Your task to perform on an android device: stop showing notifications on the lock screen Image 0: 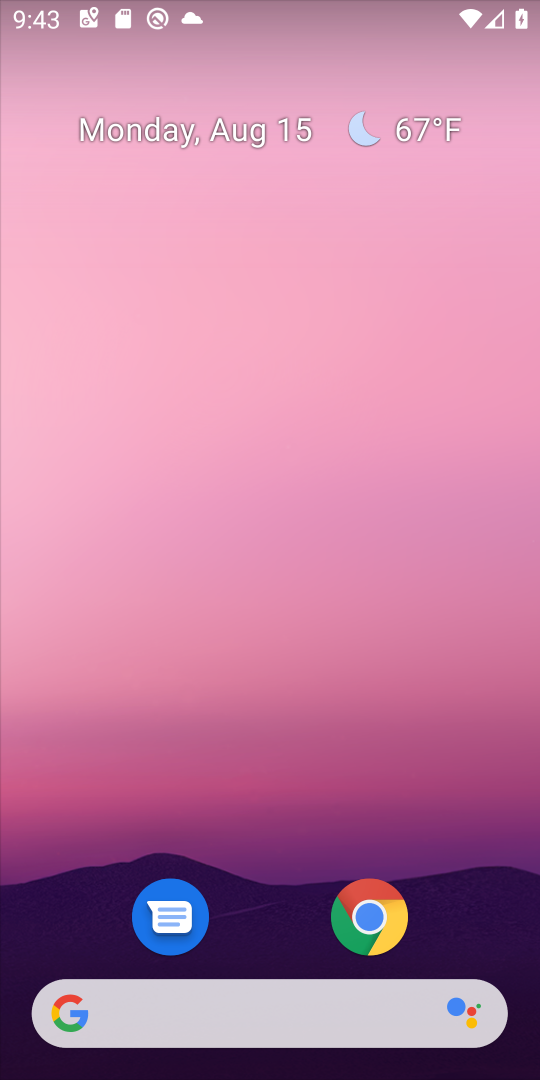
Step 0: drag from (286, 904) to (282, 8)
Your task to perform on an android device: stop showing notifications on the lock screen Image 1: 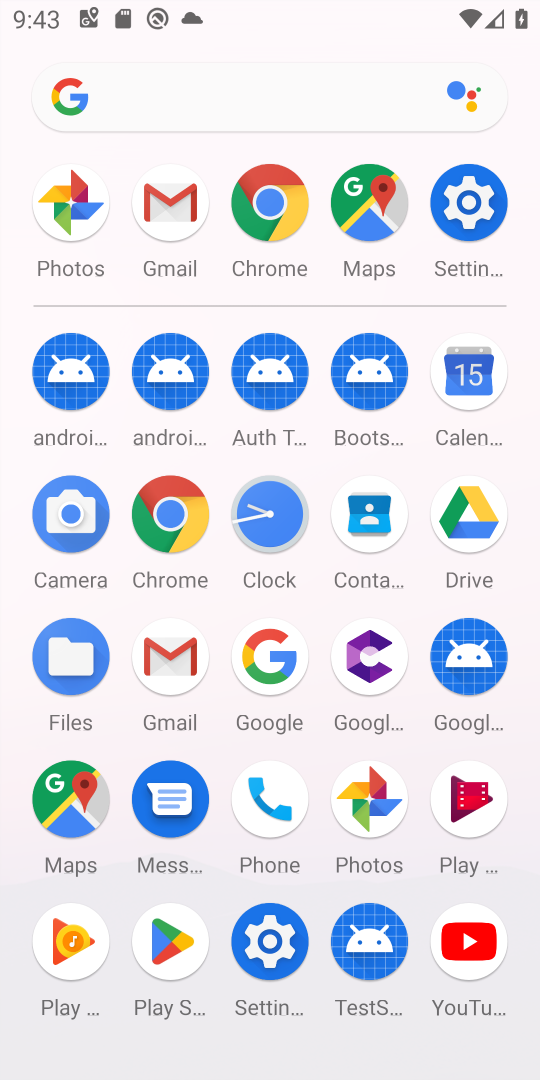
Step 1: click (472, 197)
Your task to perform on an android device: stop showing notifications on the lock screen Image 2: 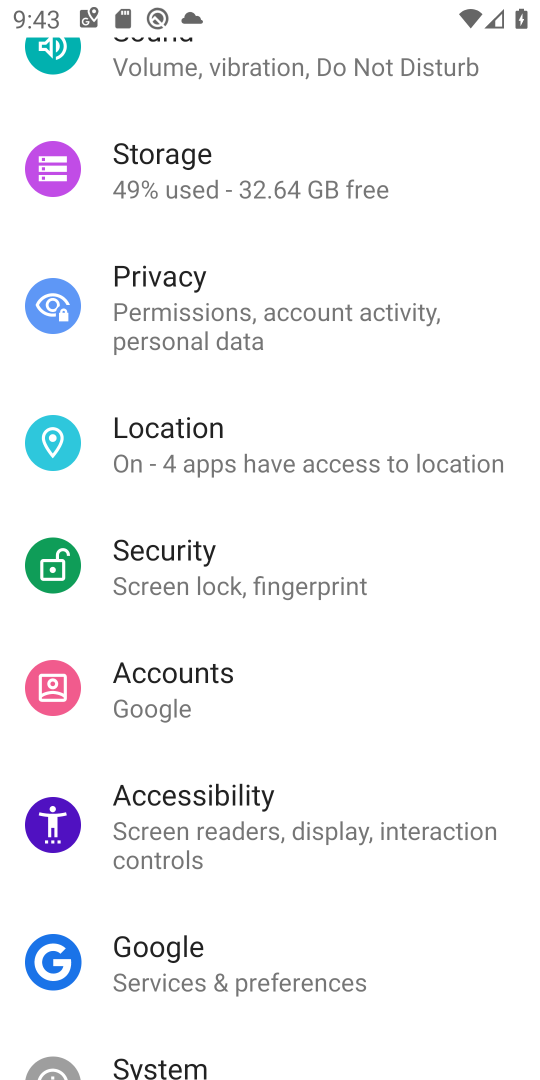
Step 2: drag from (332, 429) to (339, 1030)
Your task to perform on an android device: stop showing notifications on the lock screen Image 3: 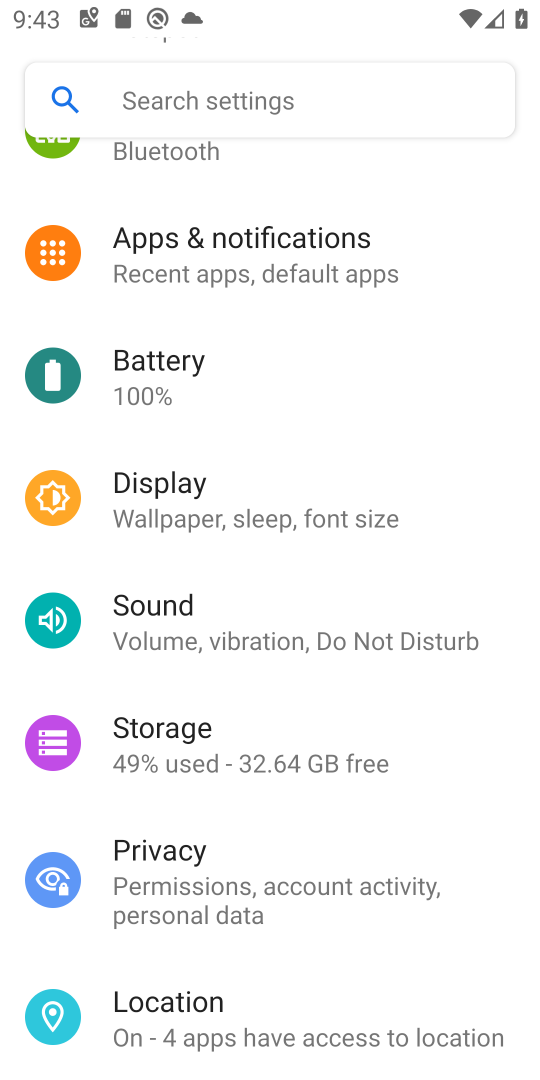
Step 3: click (321, 229)
Your task to perform on an android device: stop showing notifications on the lock screen Image 4: 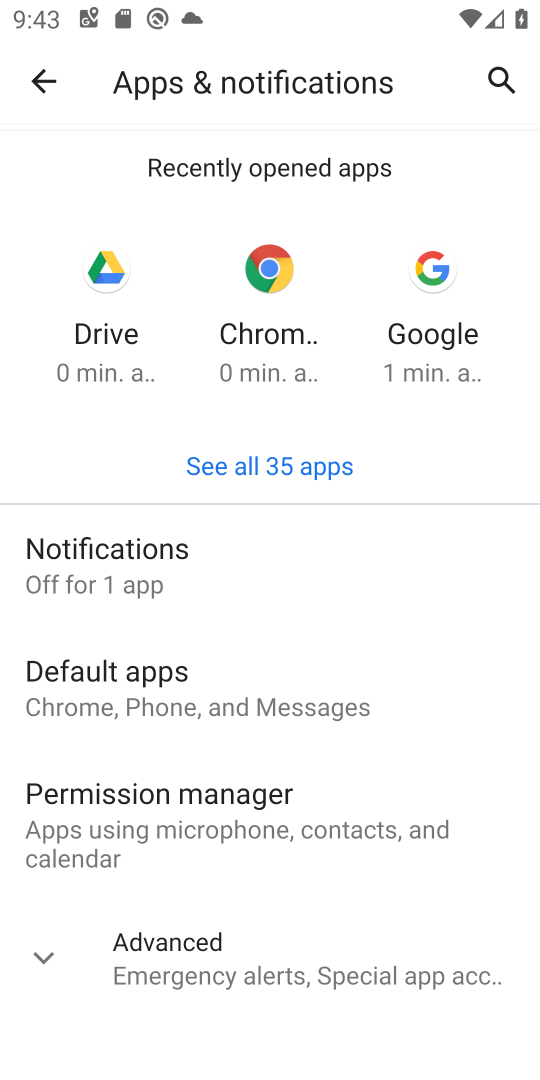
Step 4: click (159, 559)
Your task to perform on an android device: stop showing notifications on the lock screen Image 5: 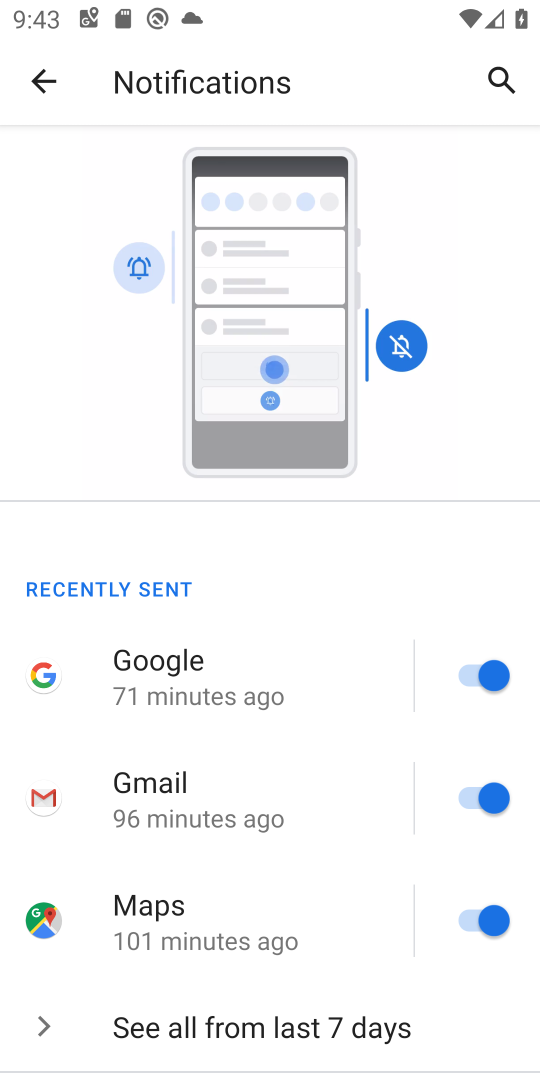
Step 5: drag from (247, 868) to (286, 63)
Your task to perform on an android device: stop showing notifications on the lock screen Image 6: 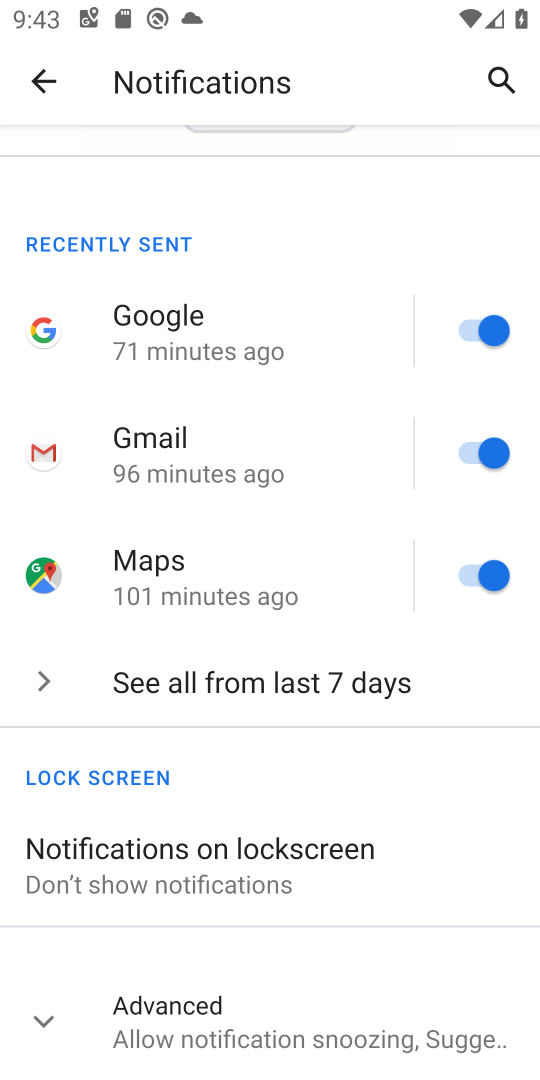
Step 6: click (286, 852)
Your task to perform on an android device: stop showing notifications on the lock screen Image 7: 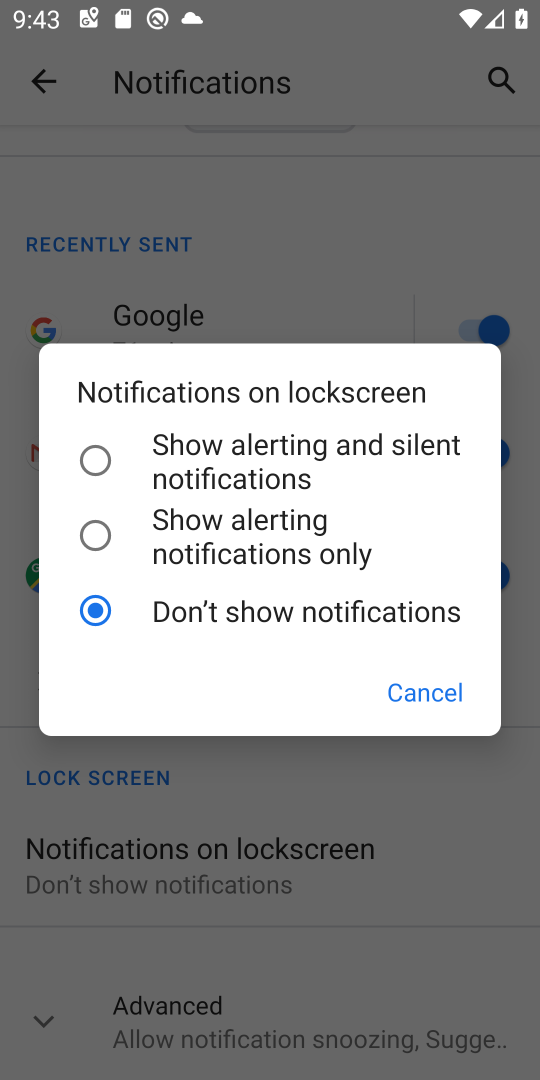
Step 7: click (285, 607)
Your task to perform on an android device: stop showing notifications on the lock screen Image 8: 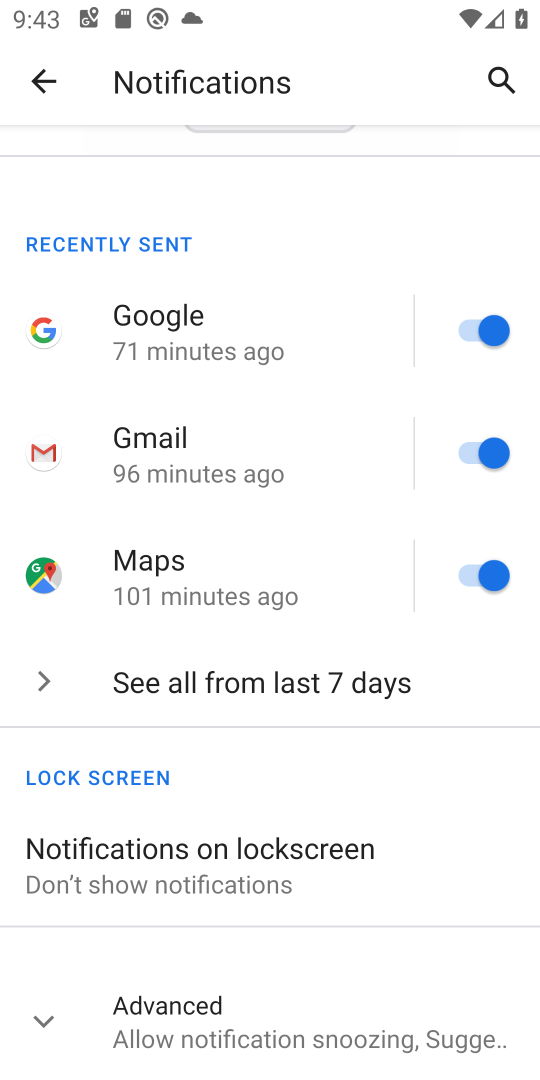
Step 8: task complete